Your task to perform on an android device: Is it going to rain tomorrow? Image 0: 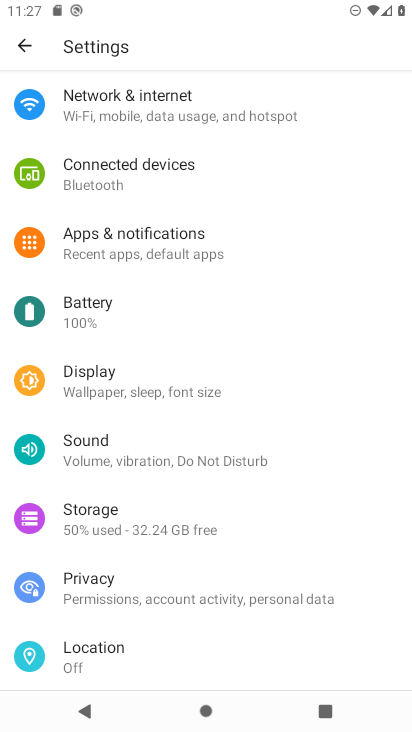
Step 0: press home button
Your task to perform on an android device: Is it going to rain tomorrow? Image 1: 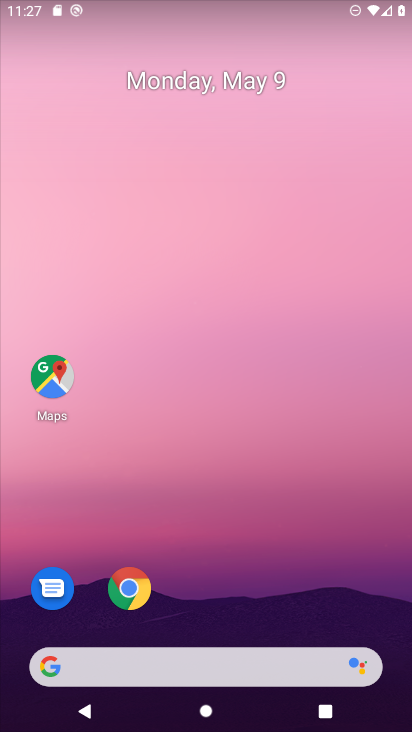
Step 1: drag from (280, 609) to (247, 76)
Your task to perform on an android device: Is it going to rain tomorrow? Image 2: 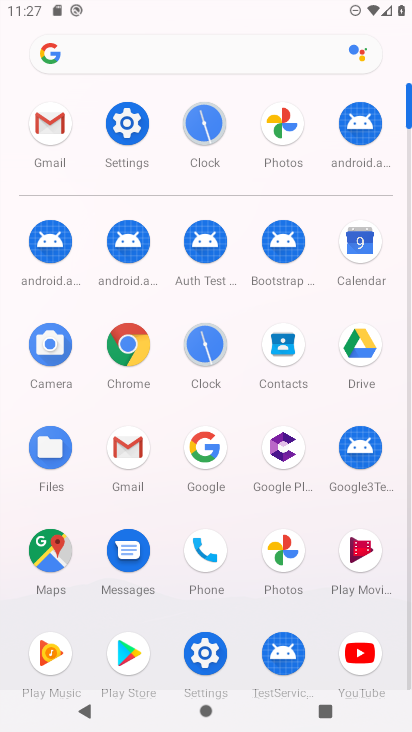
Step 2: click (213, 650)
Your task to perform on an android device: Is it going to rain tomorrow? Image 3: 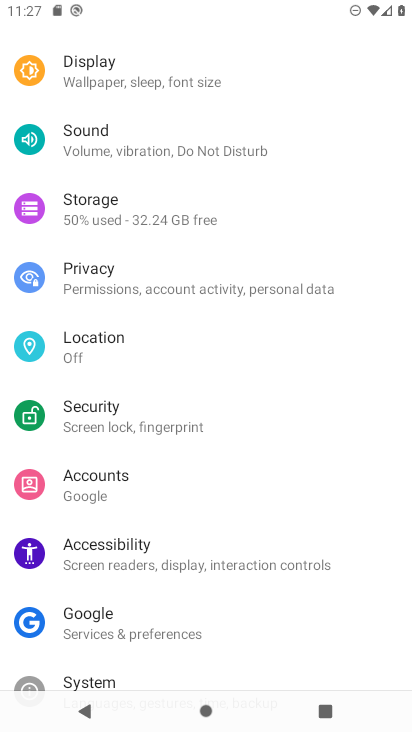
Step 3: press home button
Your task to perform on an android device: Is it going to rain tomorrow? Image 4: 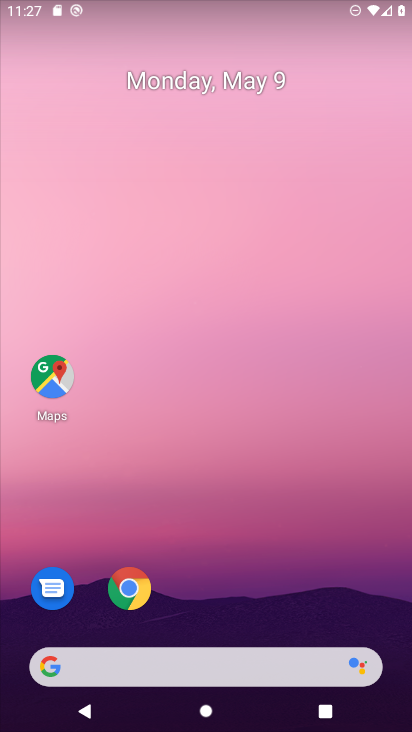
Step 4: click (242, 592)
Your task to perform on an android device: Is it going to rain tomorrow? Image 5: 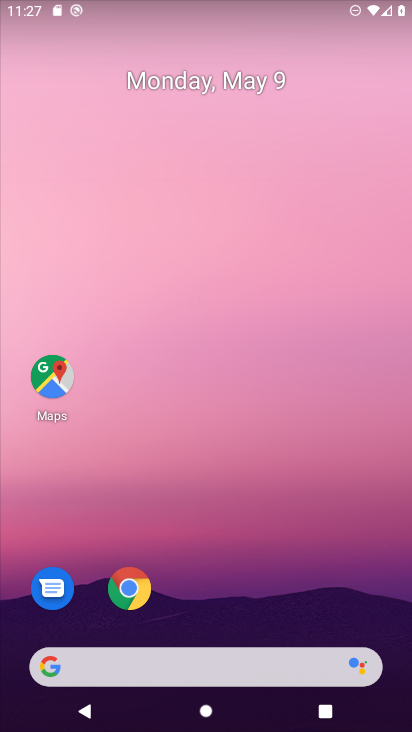
Step 5: click (235, 658)
Your task to perform on an android device: Is it going to rain tomorrow? Image 6: 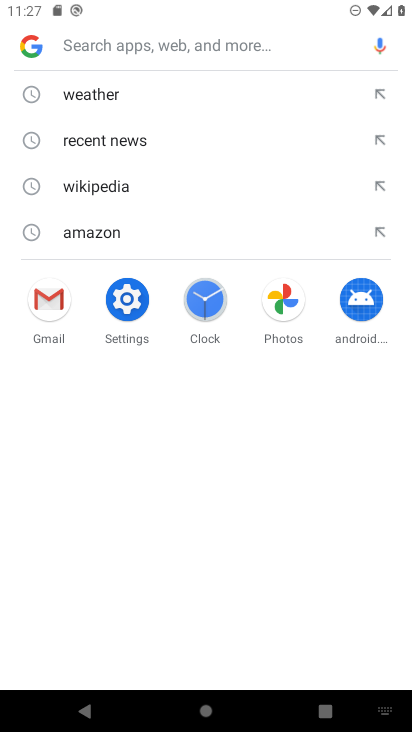
Step 6: click (183, 97)
Your task to perform on an android device: Is it going to rain tomorrow? Image 7: 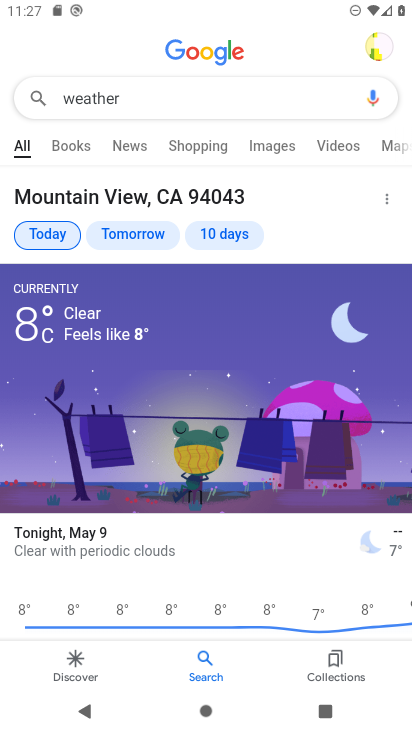
Step 7: click (144, 237)
Your task to perform on an android device: Is it going to rain tomorrow? Image 8: 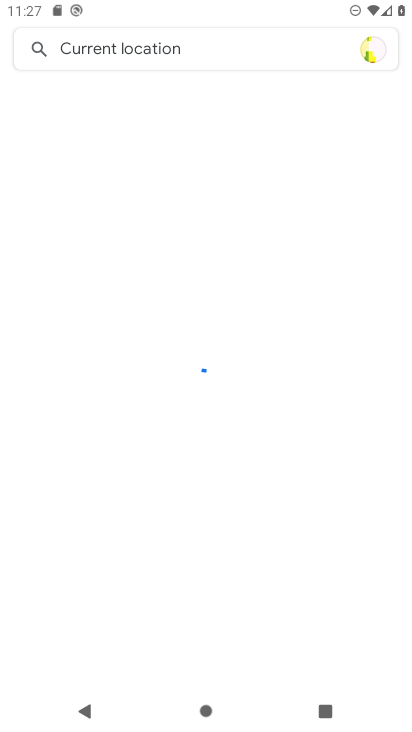
Step 8: task complete